Your task to perform on an android device: Open the web browser Image 0: 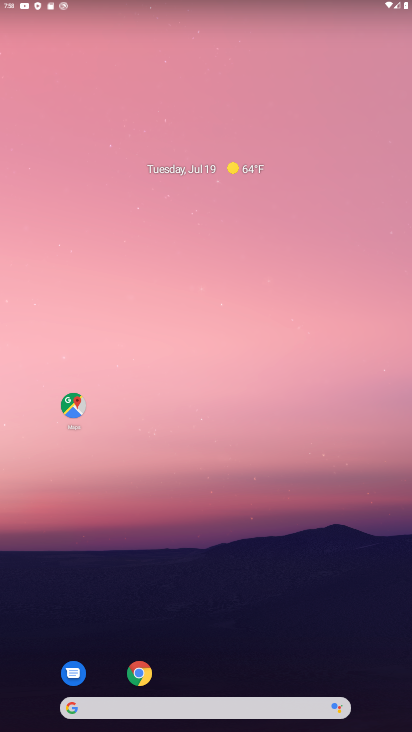
Step 0: click (135, 682)
Your task to perform on an android device: Open the web browser Image 1: 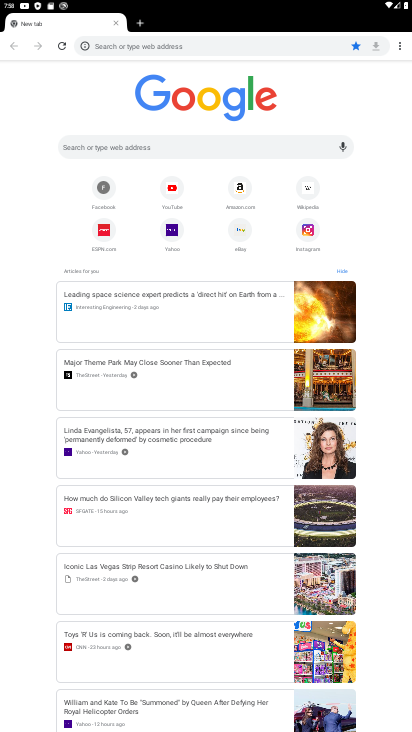
Step 1: task complete